Your task to perform on an android device: check out phone information Image 0: 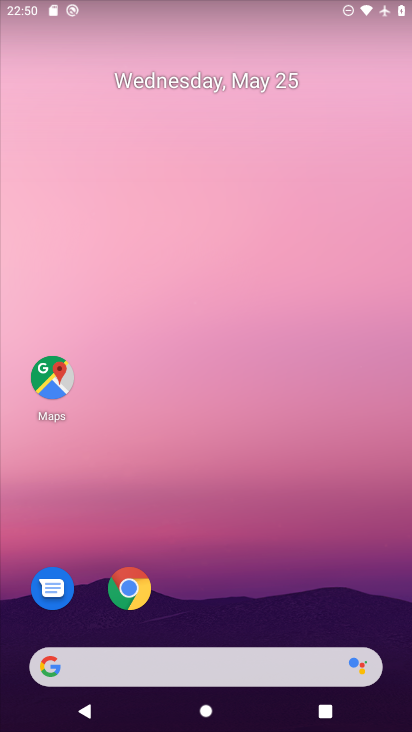
Step 0: drag from (283, 480) to (233, 141)
Your task to perform on an android device: check out phone information Image 1: 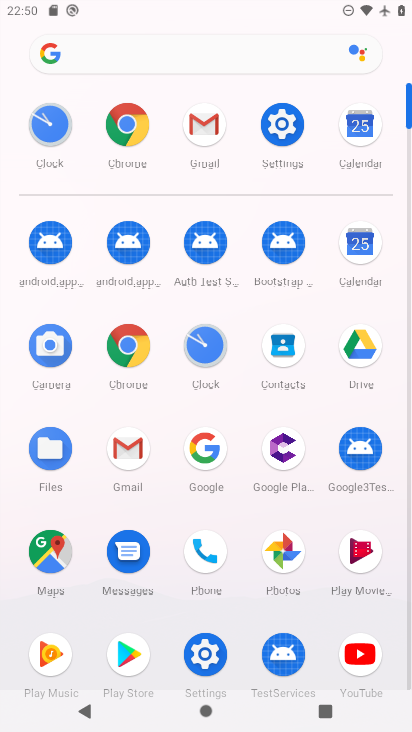
Step 1: click (203, 545)
Your task to perform on an android device: check out phone information Image 2: 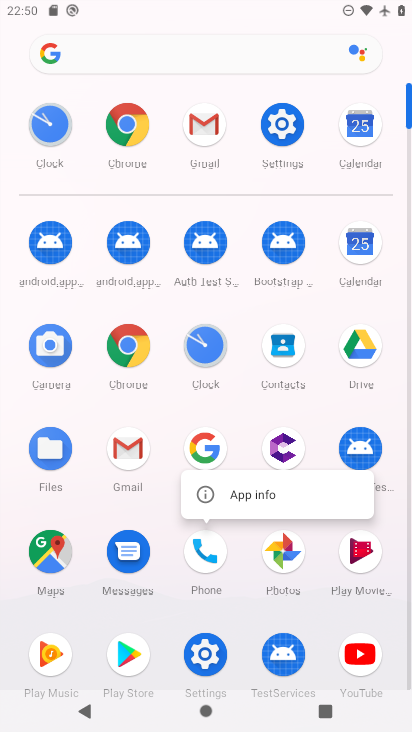
Step 2: click (242, 500)
Your task to perform on an android device: check out phone information Image 3: 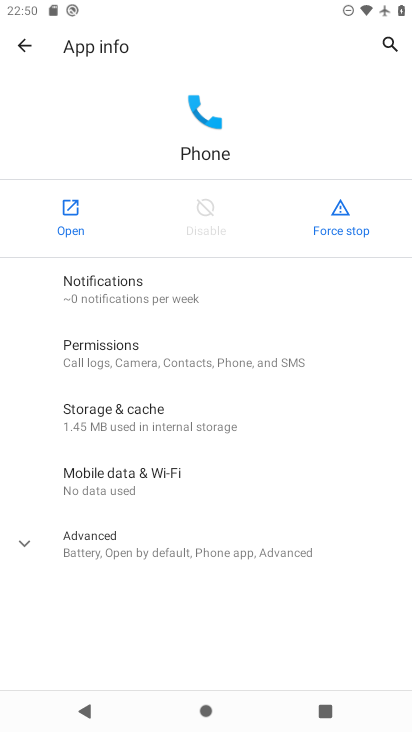
Step 3: task complete